Your task to perform on an android device: see sites visited before in the chrome app Image 0: 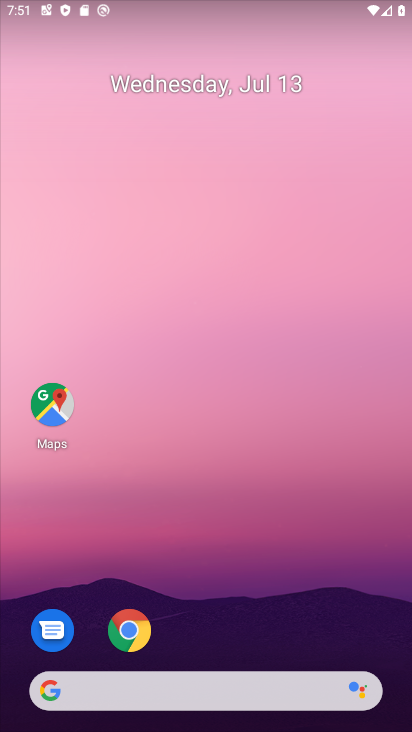
Step 0: drag from (354, 615) to (365, 136)
Your task to perform on an android device: see sites visited before in the chrome app Image 1: 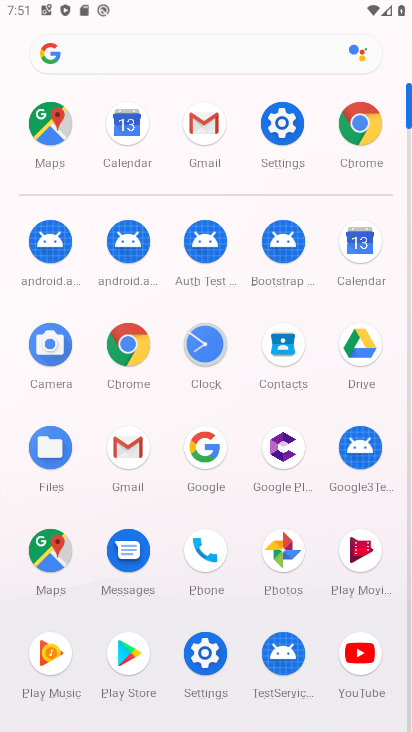
Step 1: click (138, 349)
Your task to perform on an android device: see sites visited before in the chrome app Image 2: 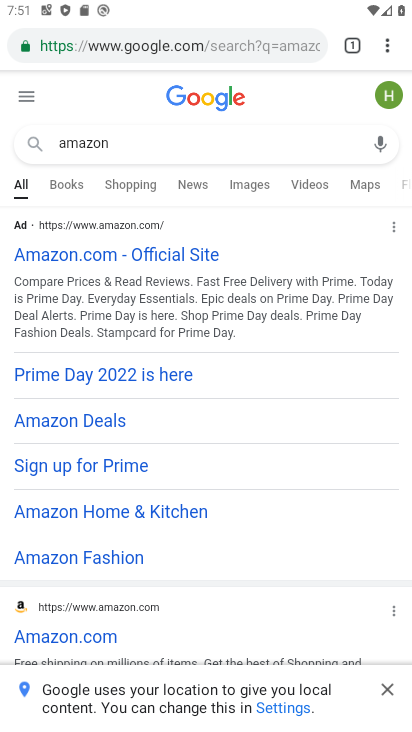
Step 2: click (386, 43)
Your task to perform on an android device: see sites visited before in the chrome app Image 3: 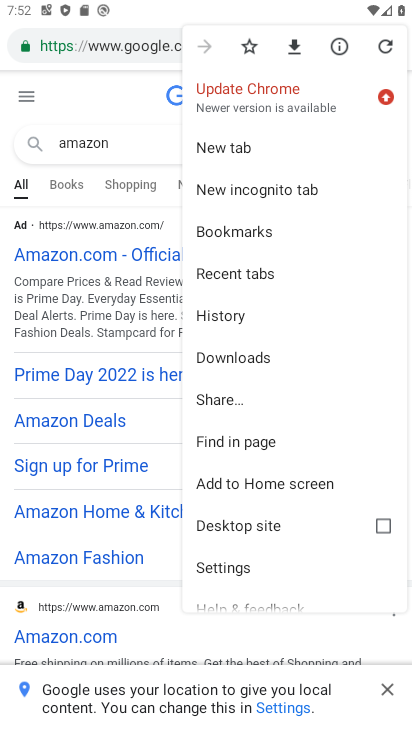
Step 3: drag from (341, 335) to (344, 253)
Your task to perform on an android device: see sites visited before in the chrome app Image 4: 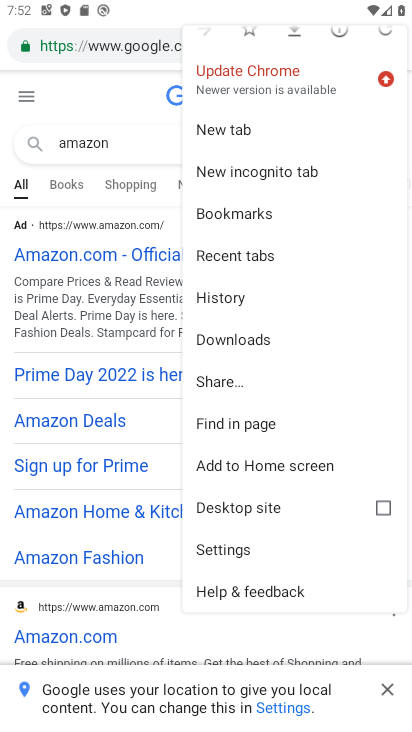
Step 4: click (244, 292)
Your task to perform on an android device: see sites visited before in the chrome app Image 5: 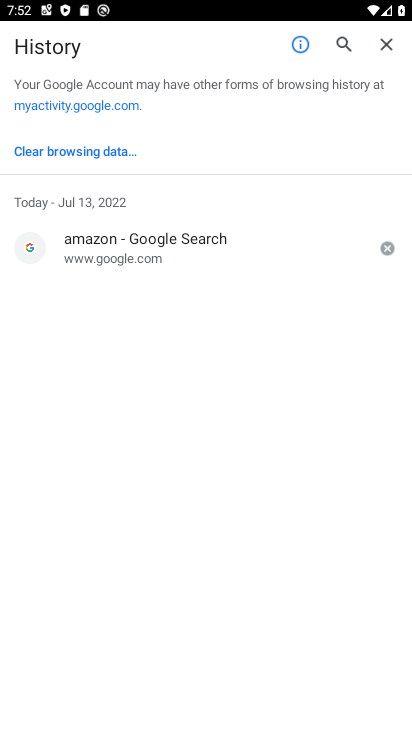
Step 5: task complete